Your task to perform on an android device: make emails show in primary in the gmail app Image 0: 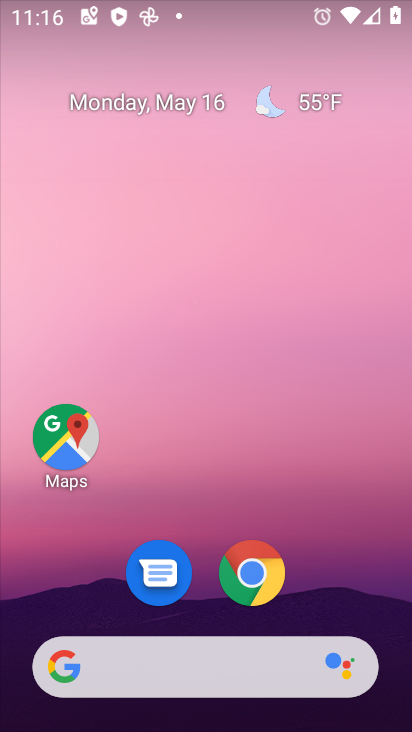
Step 0: drag from (314, 545) to (246, 59)
Your task to perform on an android device: make emails show in primary in the gmail app Image 1: 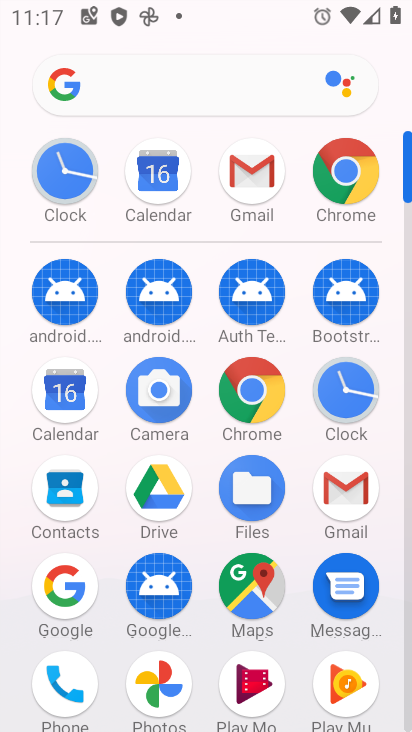
Step 1: click (334, 494)
Your task to perform on an android device: make emails show in primary in the gmail app Image 2: 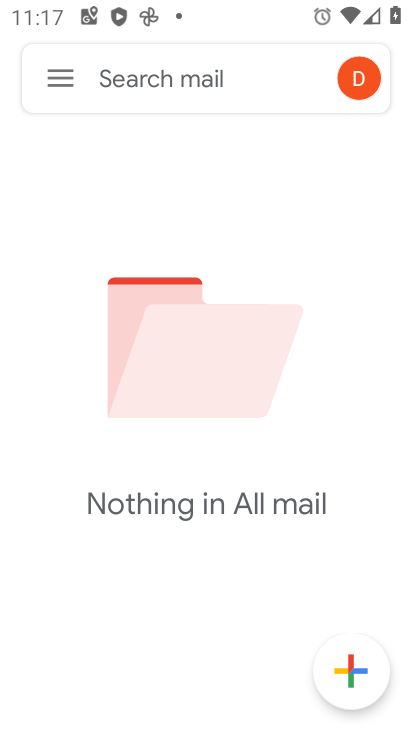
Step 2: click (65, 76)
Your task to perform on an android device: make emails show in primary in the gmail app Image 3: 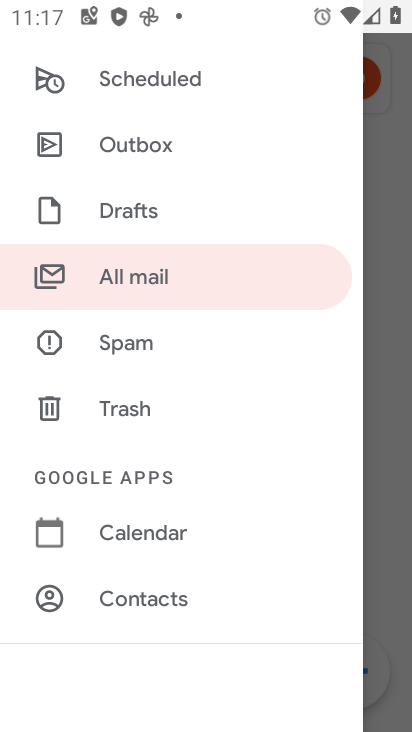
Step 3: drag from (167, 636) to (138, 277)
Your task to perform on an android device: make emails show in primary in the gmail app Image 4: 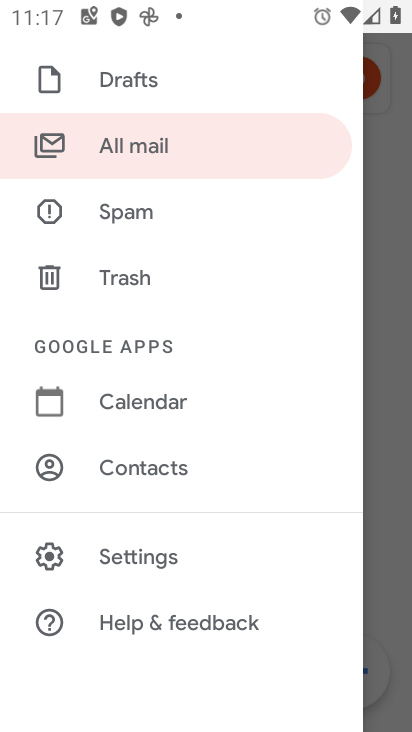
Step 4: click (159, 558)
Your task to perform on an android device: make emails show in primary in the gmail app Image 5: 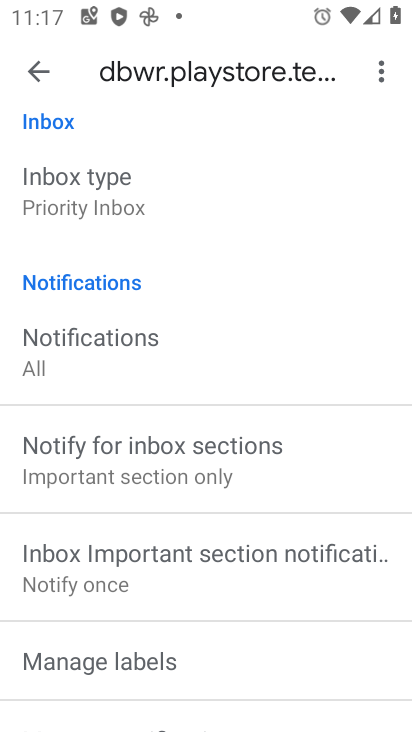
Step 5: click (131, 199)
Your task to perform on an android device: make emails show in primary in the gmail app Image 6: 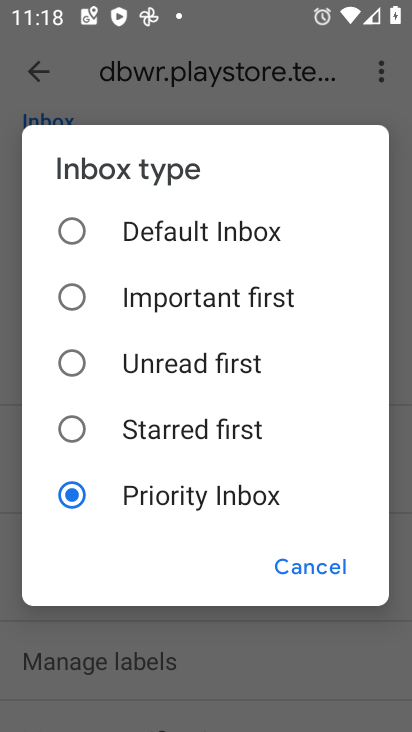
Step 6: click (69, 233)
Your task to perform on an android device: make emails show in primary in the gmail app Image 7: 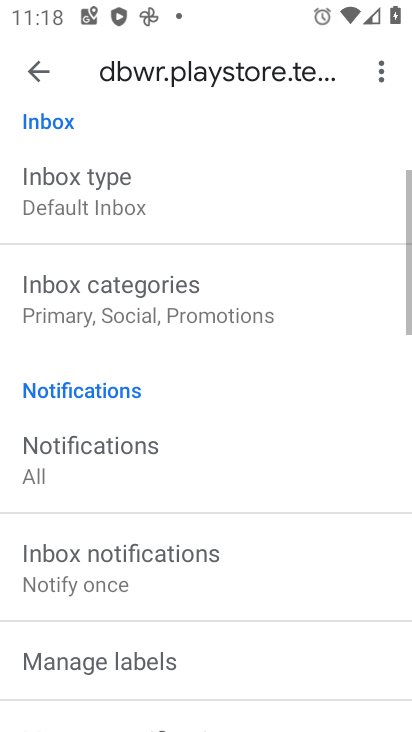
Step 7: click (128, 295)
Your task to perform on an android device: make emails show in primary in the gmail app Image 8: 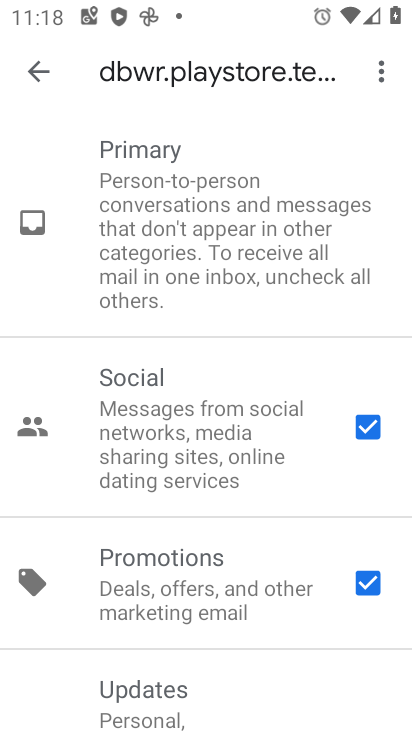
Step 8: click (368, 425)
Your task to perform on an android device: make emails show in primary in the gmail app Image 9: 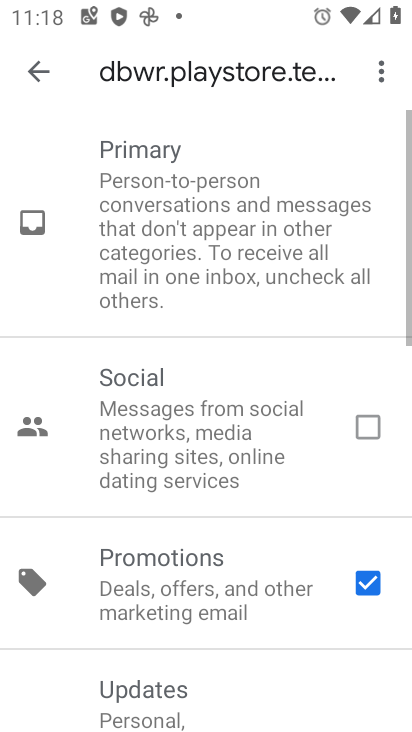
Step 9: click (362, 577)
Your task to perform on an android device: make emails show in primary in the gmail app Image 10: 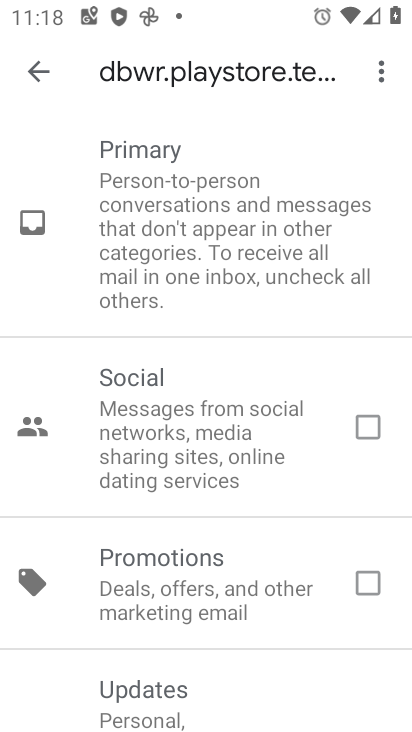
Step 10: click (43, 63)
Your task to perform on an android device: make emails show in primary in the gmail app Image 11: 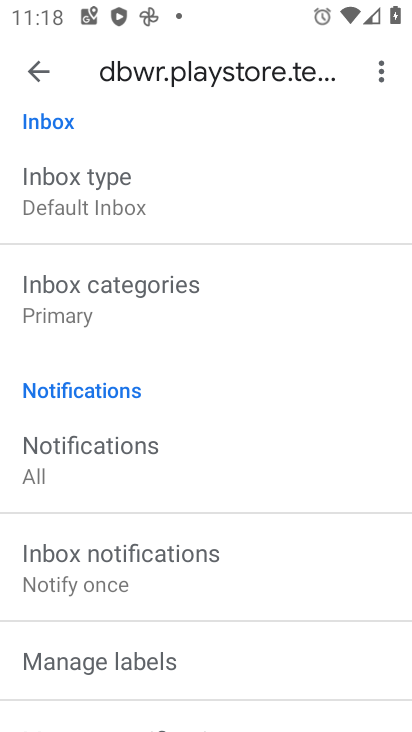
Step 11: task complete